Your task to perform on an android device: Open calendar and show me the first week of next month Image 0: 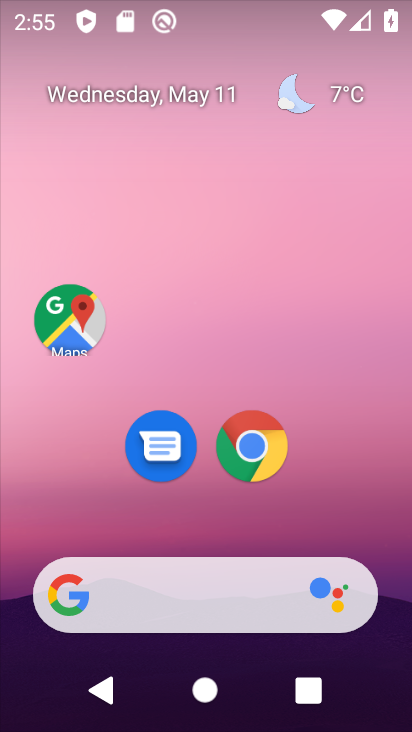
Step 0: drag from (368, 600) to (143, 34)
Your task to perform on an android device: Open calendar and show me the first week of next month Image 1: 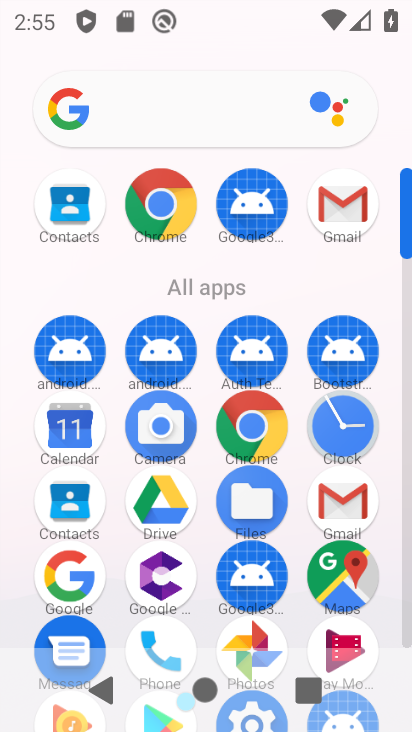
Step 1: click (68, 431)
Your task to perform on an android device: Open calendar and show me the first week of next month Image 2: 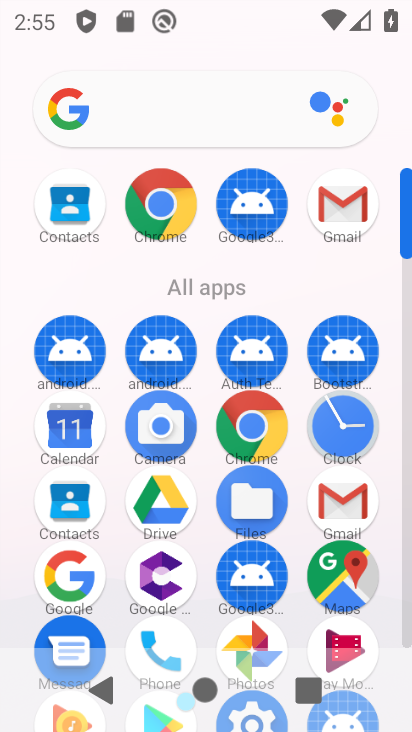
Step 2: click (68, 431)
Your task to perform on an android device: Open calendar and show me the first week of next month Image 3: 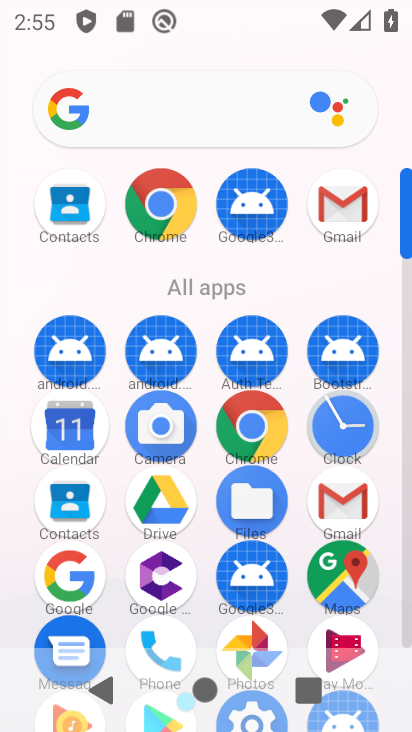
Step 3: click (70, 429)
Your task to perform on an android device: Open calendar and show me the first week of next month Image 4: 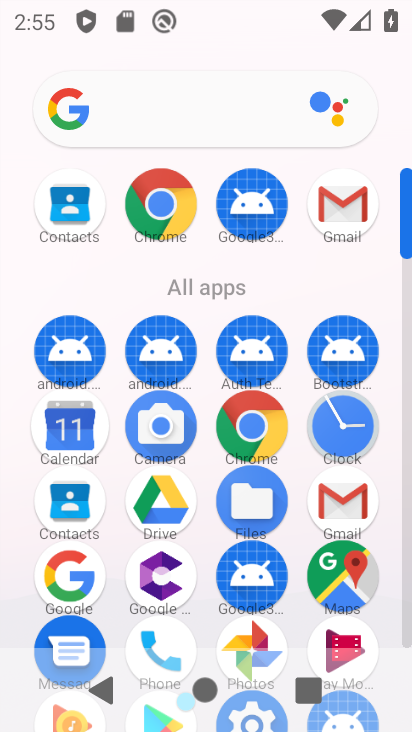
Step 4: click (70, 429)
Your task to perform on an android device: Open calendar and show me the first week of next month Image 5: 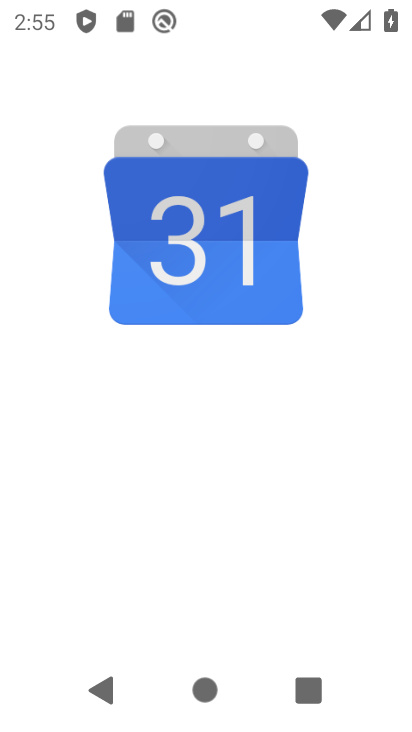
Step 5: click (65, 423)
Your task to perform on an android device: Open calendar and show me the first week of next month Image 6: 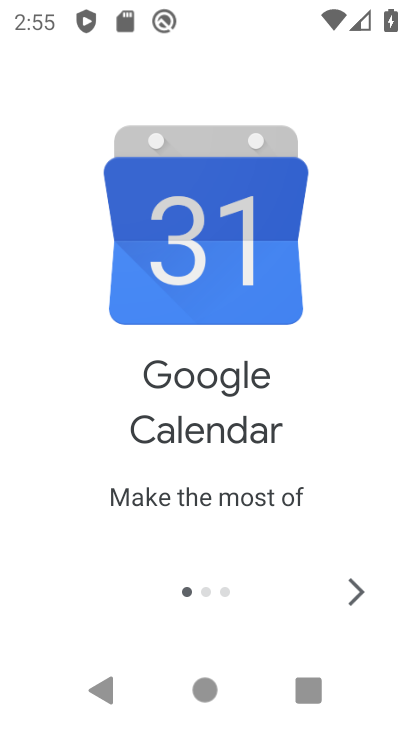
Step 6: click (350, 591)
Your task to perform on an android device: Open calendar and show me the first week of next month Image 7: 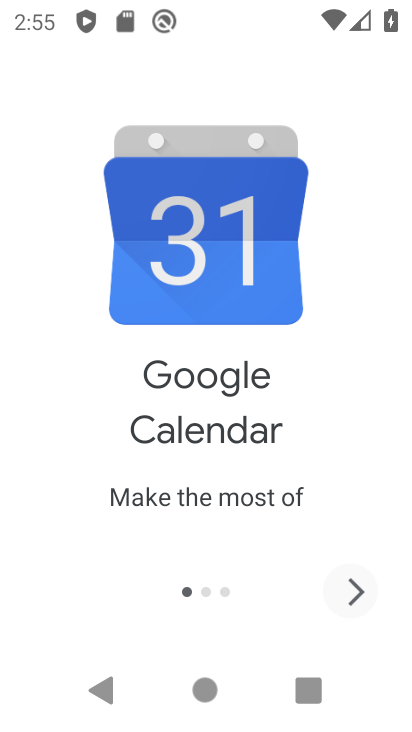
Step 7: click (355, 596)
Your task to perform on an android device: Open calendar and show me the first week of next month Image 8: 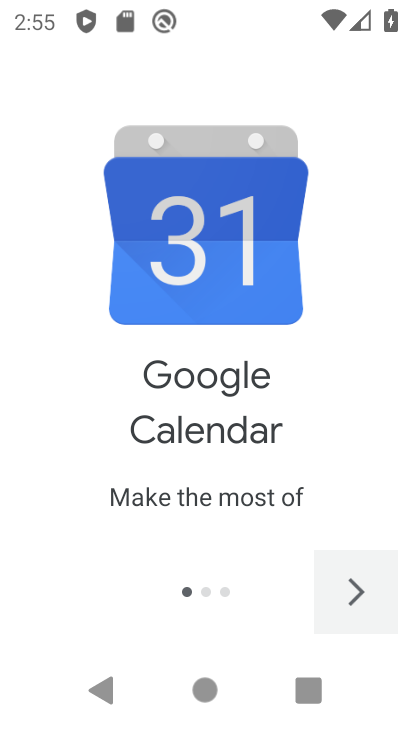
Step 8: click (352, 596)
Your task to perform on an android device: Open calendar and show me the first week of next month Image 9: 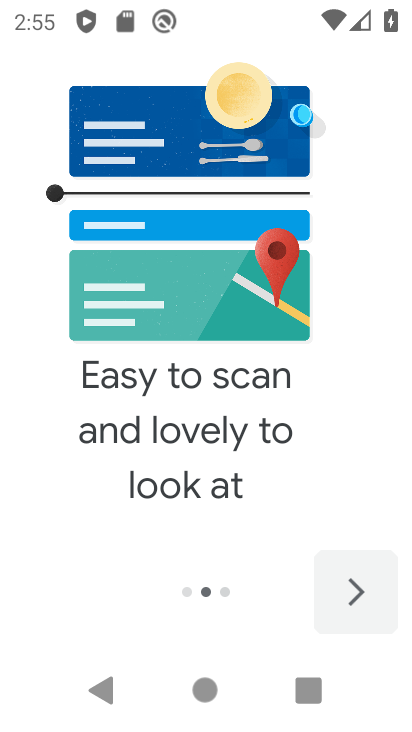
Step 9: click (352, 596)
Your task to perform on an android device: Open calendar and show me the first week of next month Image 10: 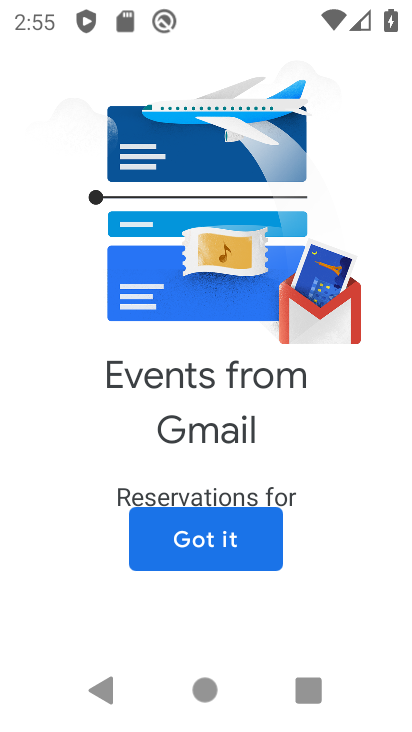
Step 10: click (348, 590)
Your task to perform on an android device: Open calendar and show me the first week of next month Image 11: 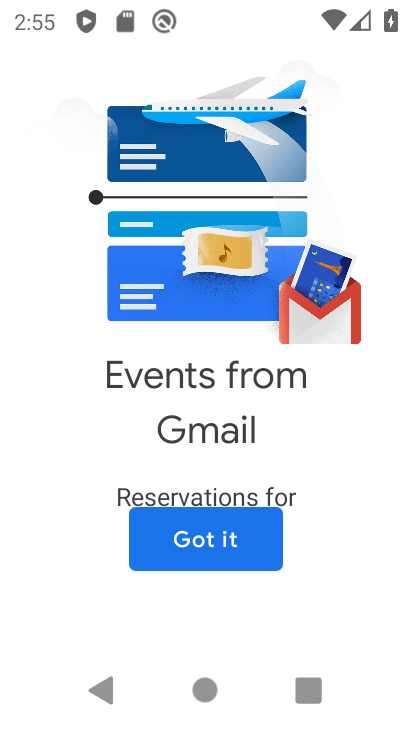
Step 11: click (227, 535)
Your task to perform on an android device: Open calendar and show me the first week of next month Image 12: 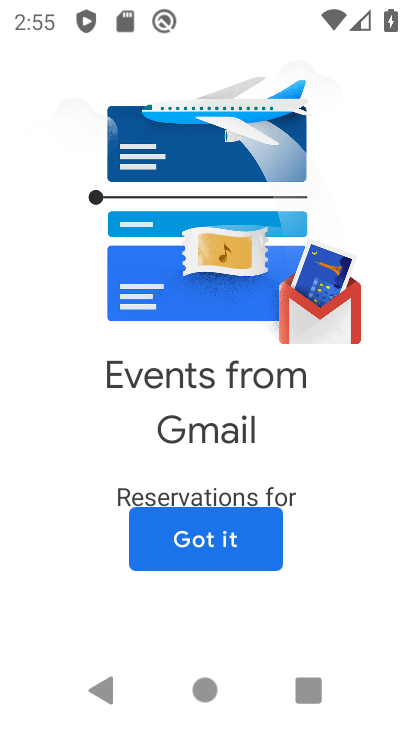
Step 12: click (227, 535)
Your task to perform on an android device: Open calendar and show me the first week of next month Image 13: 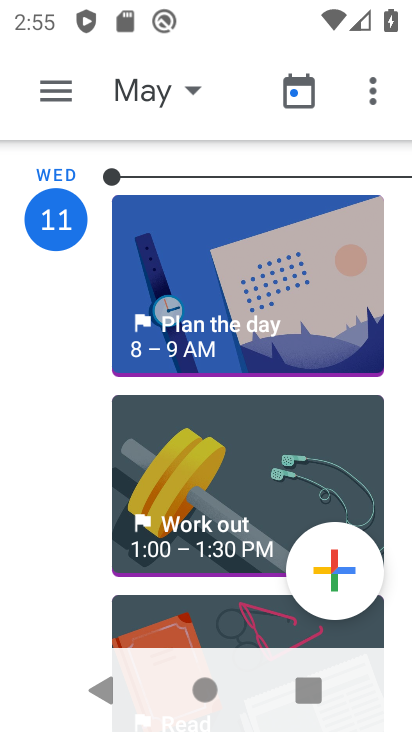
Step 13: click (190, 90)
Your task to perform on an android device: Open calendar and show me the first week of next month Image 14: 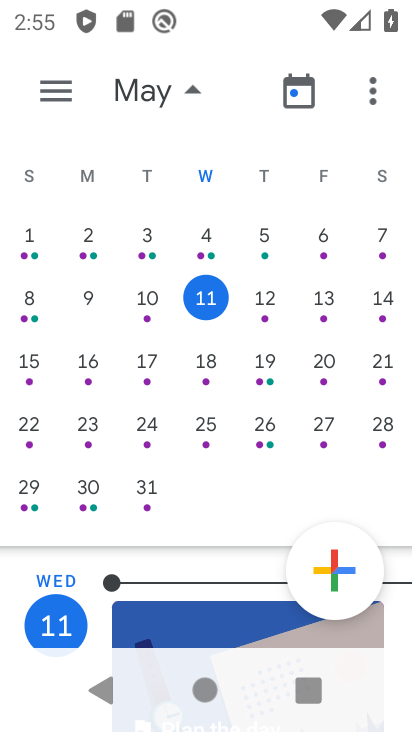
Step 14: click (185, 94)
Your task to perform on an android device: Open calendar and show me the first week of next month Image 15: 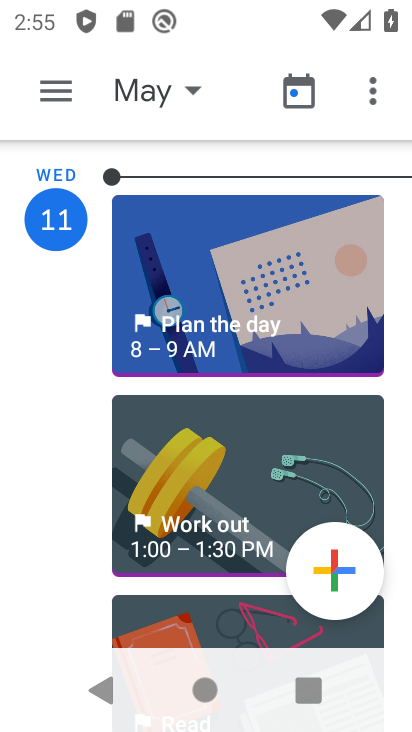
Step 15: drag from (304, 357) to (63, 433)
Your task to perform on an android device: Open calendar and show me the first week of next month Image 16: 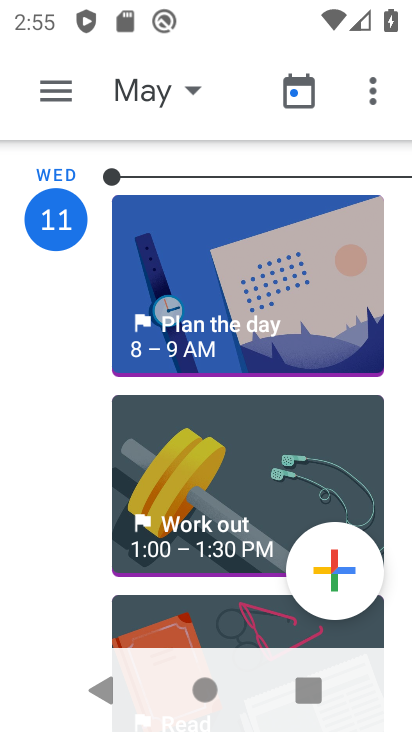
Step 16: click (192, 90)
Your task to perform on an android device: Open calendar and show me the first week of next month Image 17: 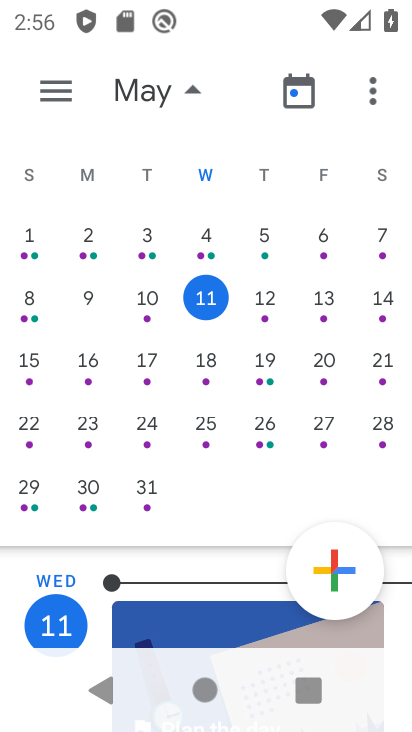
Step 17: task complete